Your task to perform on an android device: open app "Lyft - Rideshare, Bikes, Scooters & Transit" (install if not already installed) Image 0: 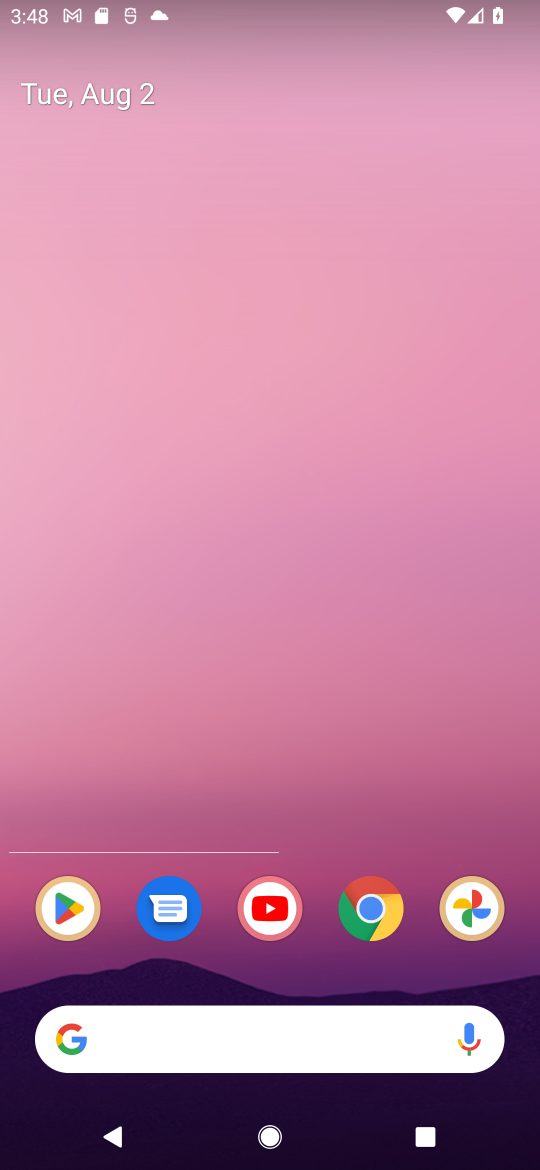
Step 0: press home button
Your task to perform on an android device: open app "Lyft - Rideshare, Bikes, Scooters & Transit" (install if not already installed) Image 1: 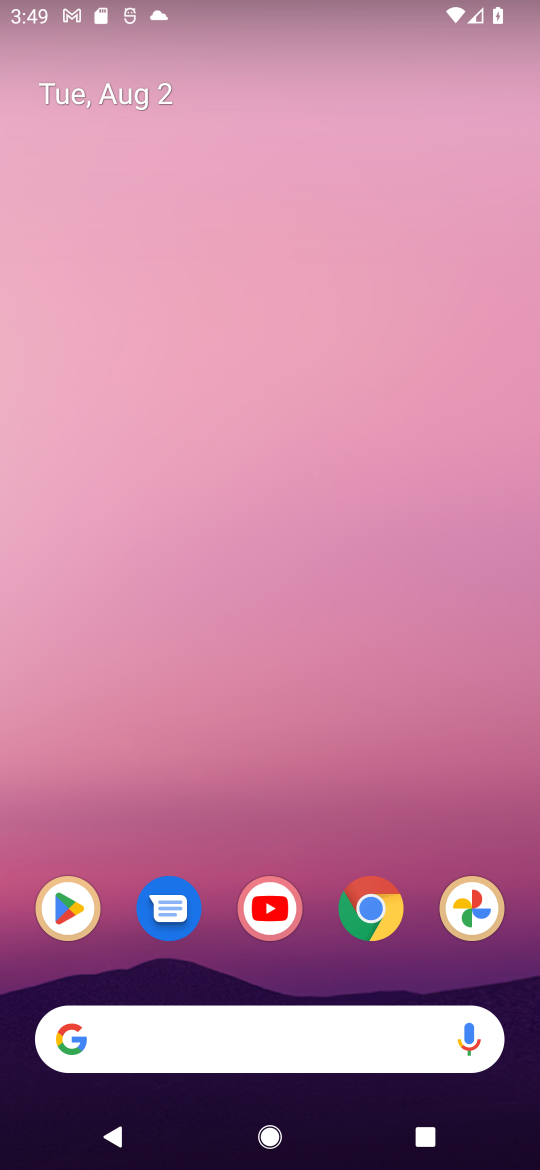
Step 1: click (62, 897)
Your task to perform on an android device: open app "Lyft - Rideshare, Bikes, Scooters & Transit" (install if not already installed) Image 2: 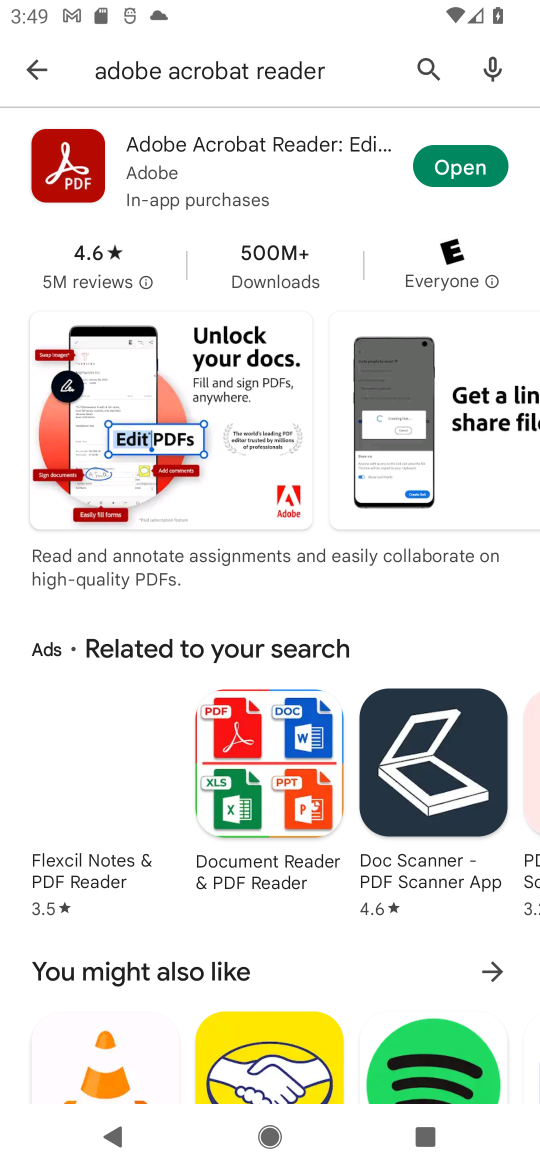
Step 2: click (423, 66)
Your task to perform on an android device: open app "Lyft - Rideshare, Bikes, Scooters & Transit" (install if not already installed) Image 3: 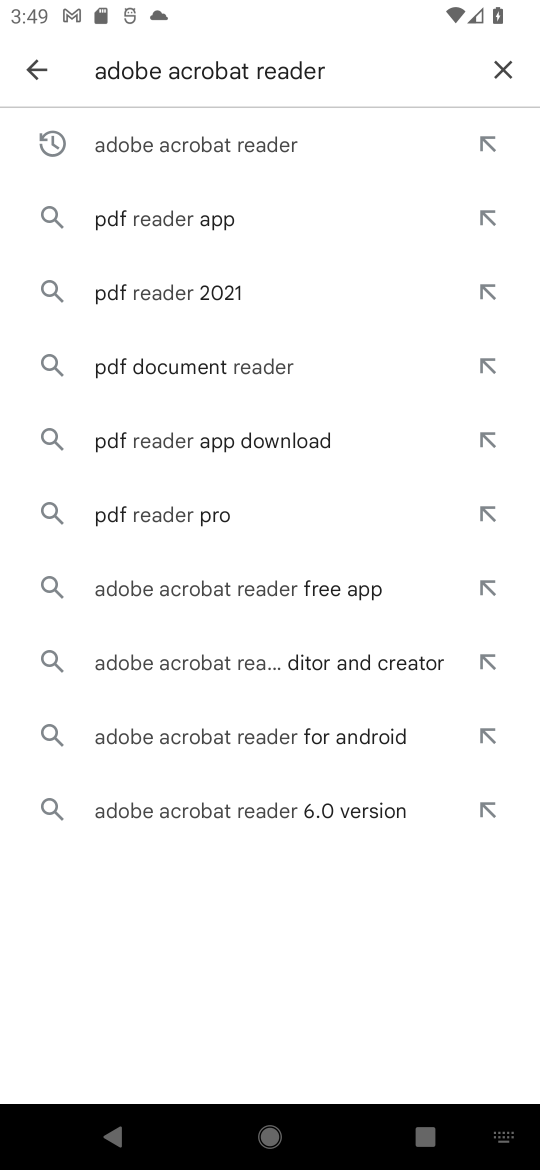
Step 3: click (496, 66)
Your task to perform on an android device: open app "Lyft - Rideshare, Bikes, Scooters & Transit" (install if not already installed) Image 4: 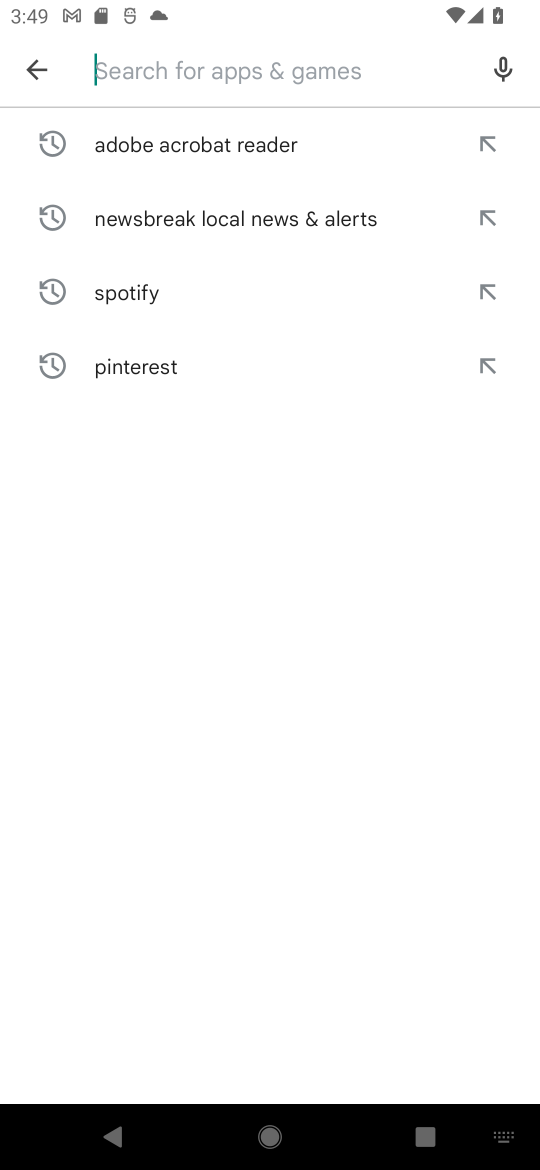
Step 4: type "Lyft - Rideshare, Bikes, Scooters & Transit"
Your task to perform on an android device: open app "Lyft - Rideshare, Bikes, Scooters & Transit" (install if not already installed) Image 5: 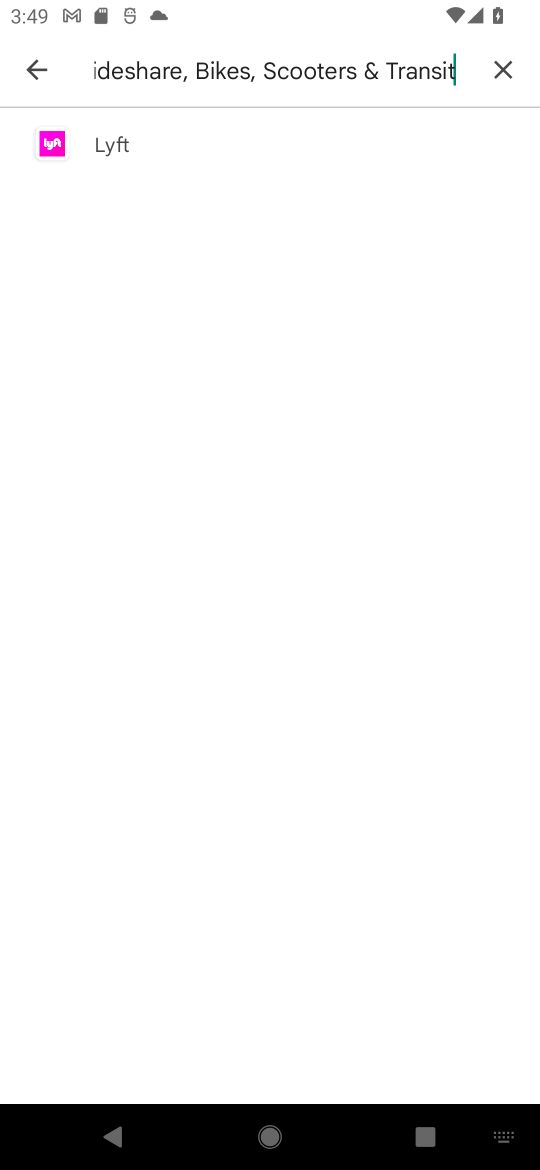
Step 5: click (114, 137)
Your task to perform on an android device: open app "Lyft - Rideshare, Bikes, Scooters & Transit" (install if not already installed) Image 6: 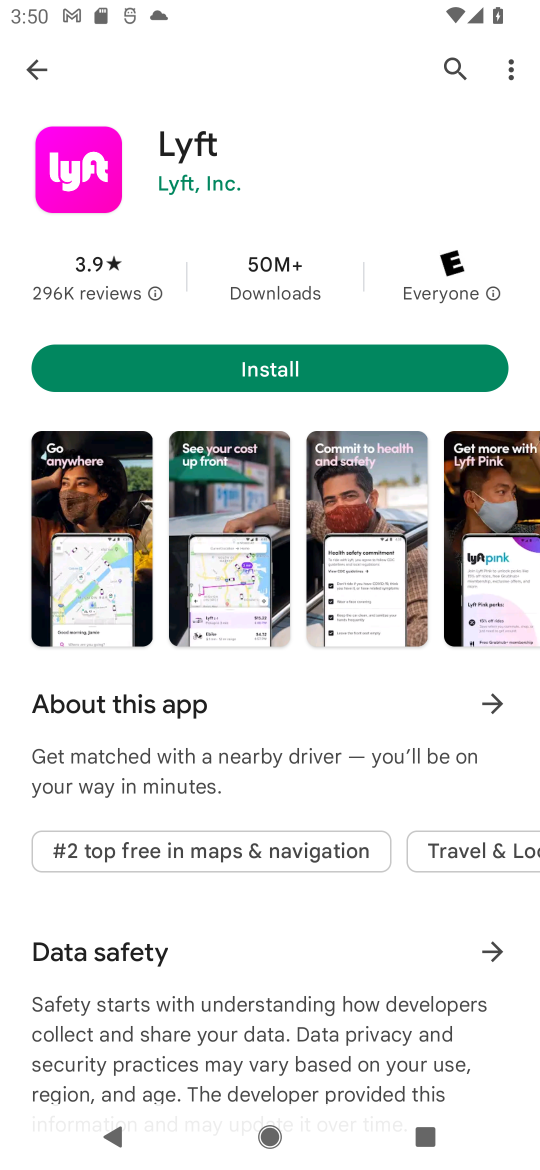
Step 6: click (284, 371)
Your task to perform on an android device: open app "Lyft - Rideshare, Bikes, Scooters & Transit" (install if not already installed) Image 7: 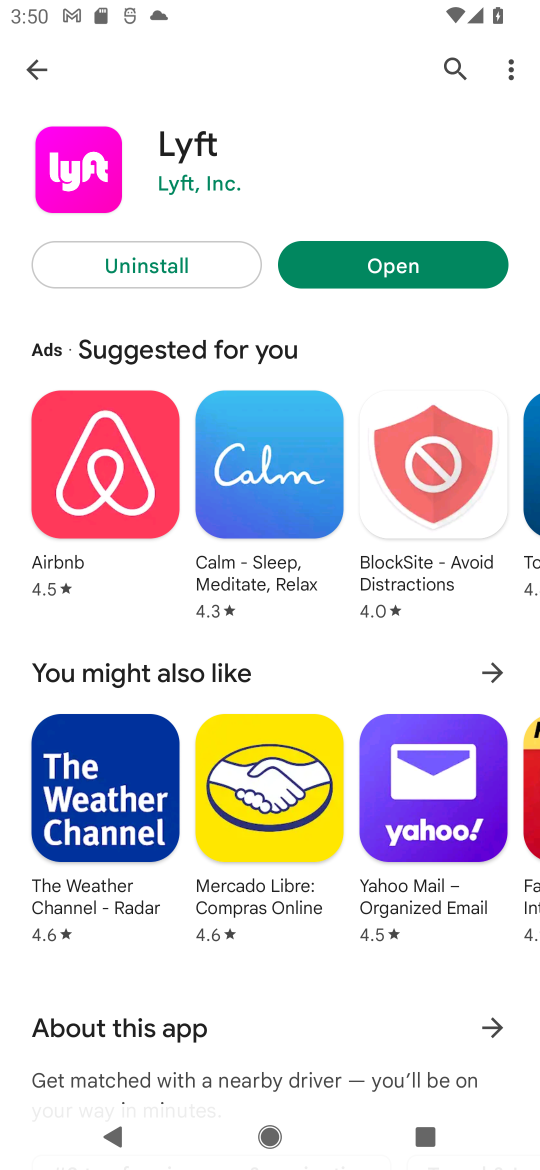
Step 7: click (392, 266)
Your task to perform on an android device: open app "Lyft - Rideshare, Bikes, Scooters & Transit" (install if not already installed) Image 8: 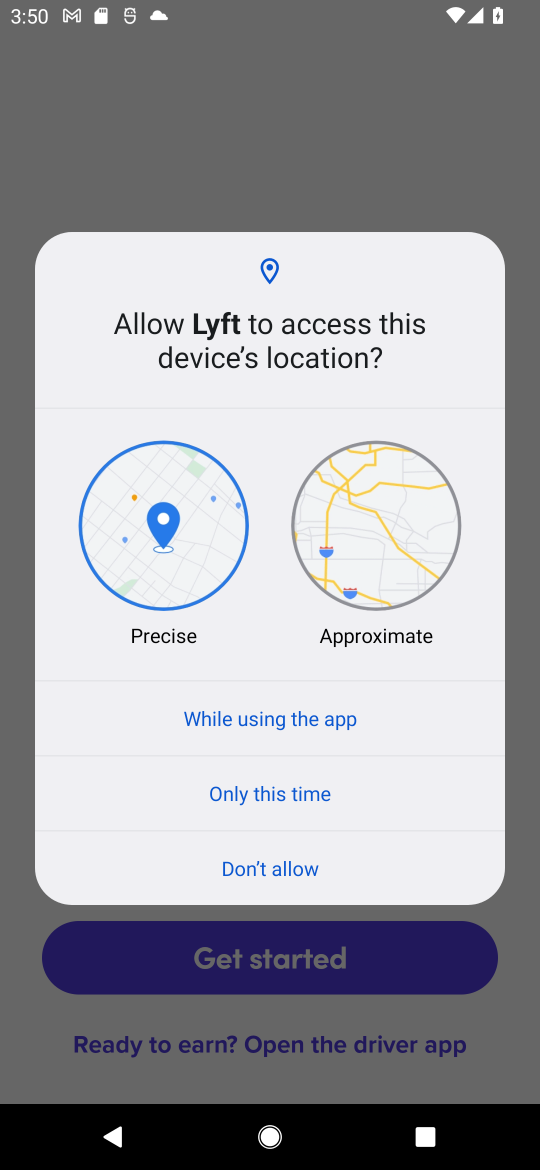
Step 8: click (249, 717)
Your task to perform on an android device: open app "Lyft - Rideshare, Bikes, Scooters & Transit" (install if not already installed) Image 9: 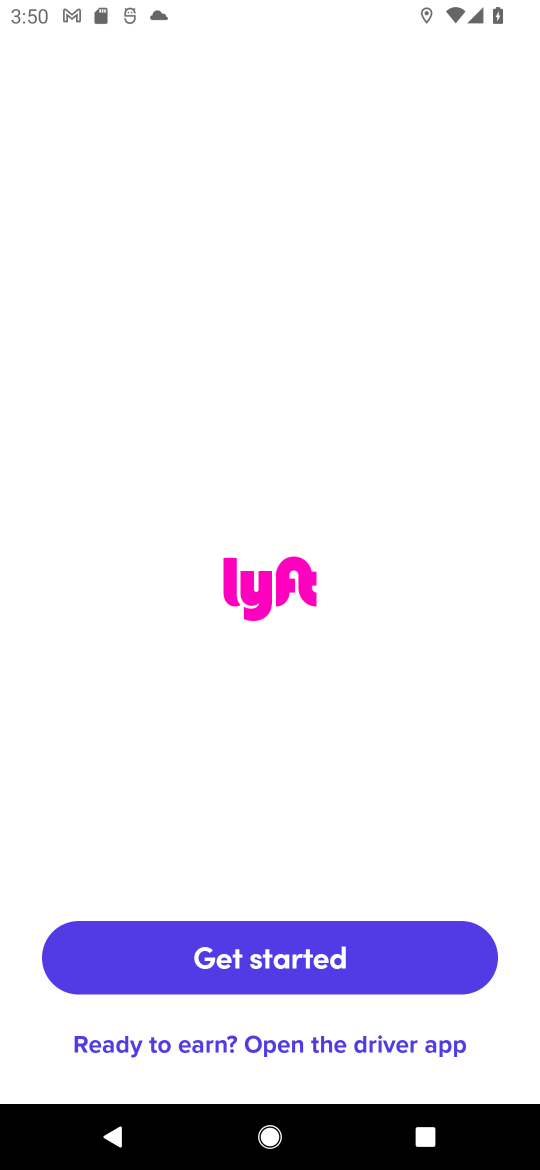
Step 9: click (252, 957)
Your task to perform on an android device: open app "Lyft - Rideshare, Bikes, Scooters & Transit" (install if not already installed) Image 10: 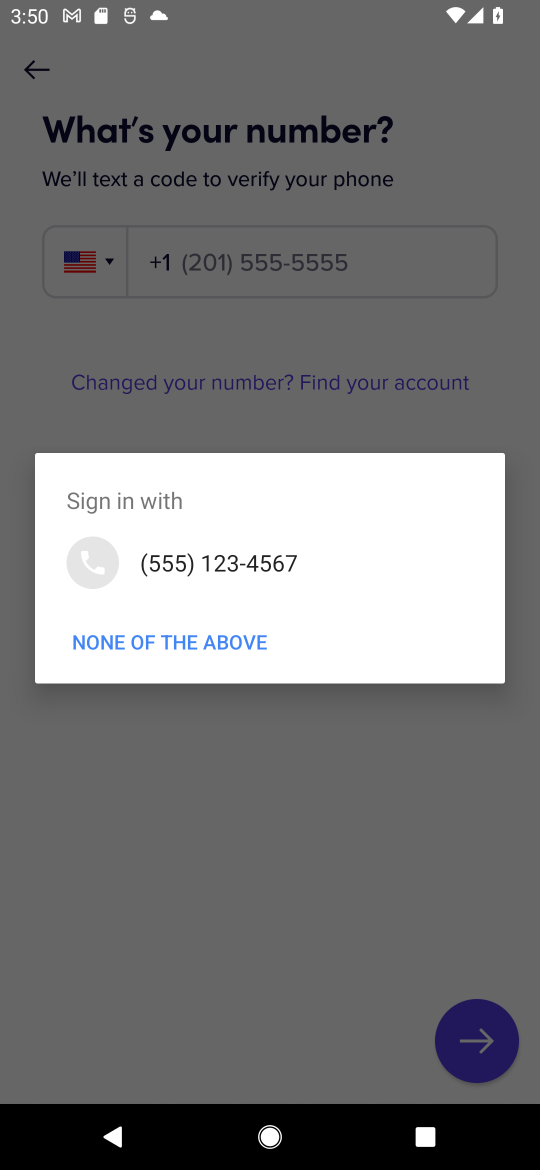
Step 10: click (175, 567)
Your task to perform on an android device: open app "Lyft - Rideshare, Bikes, Scooters & Transit" (install if not already installed) Image 11: 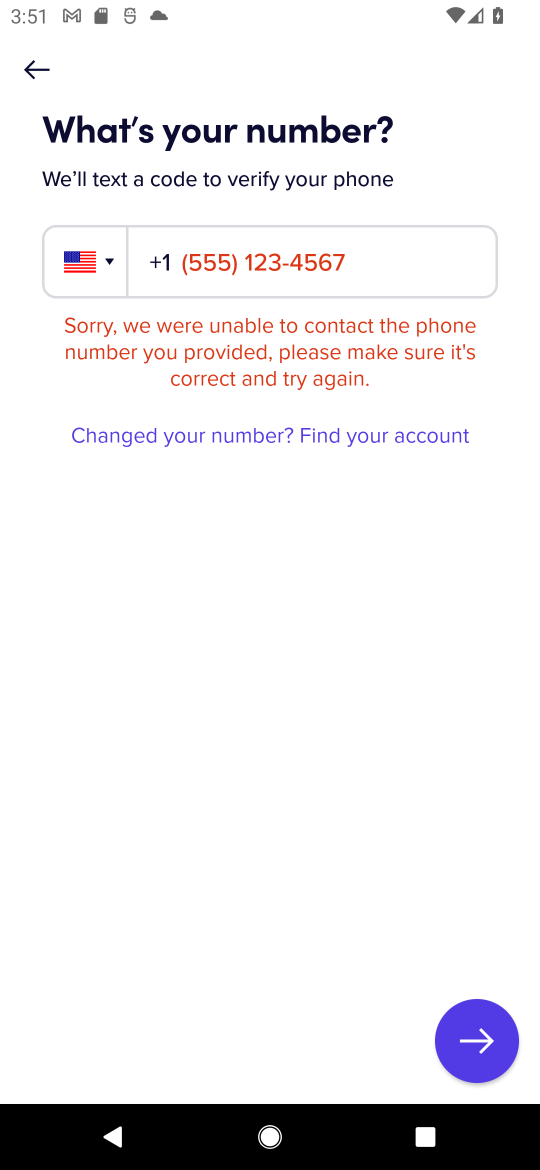
Step 11: click (189, 432)
Your task to perform on an android device: open app "Lyft - Rideshare, Bikes, Scooters & Transit" (install if not already installed) Image 12: 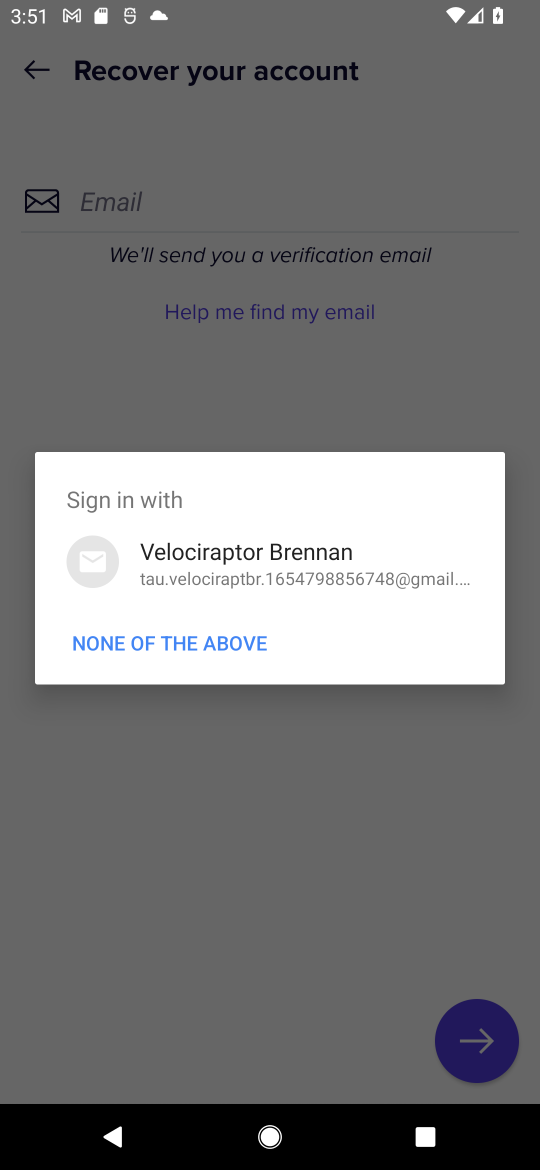
Step 12: click (240, 558)
Your task to perform on an android device: open app "Lyft - Rideshare, Bikes, Scooters & Transit" (install if not already installed) Image 13: 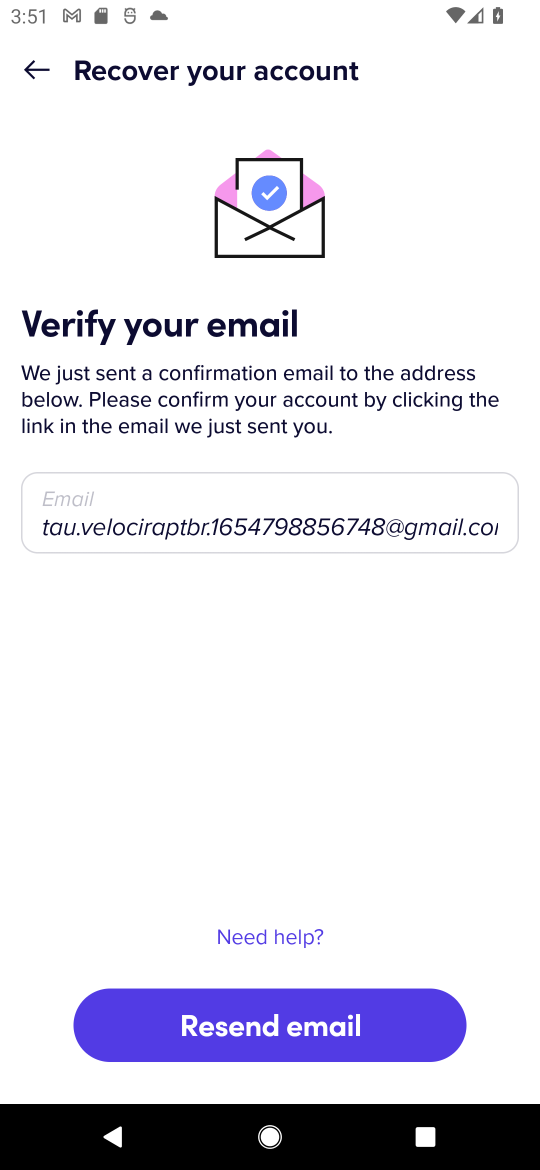
Step 13: click (257, 1031)
Your task to perform on an android device: open app "Lyft - Rideshare, Bikes, Scooters & Transit" (install if not already installed) Image 14: 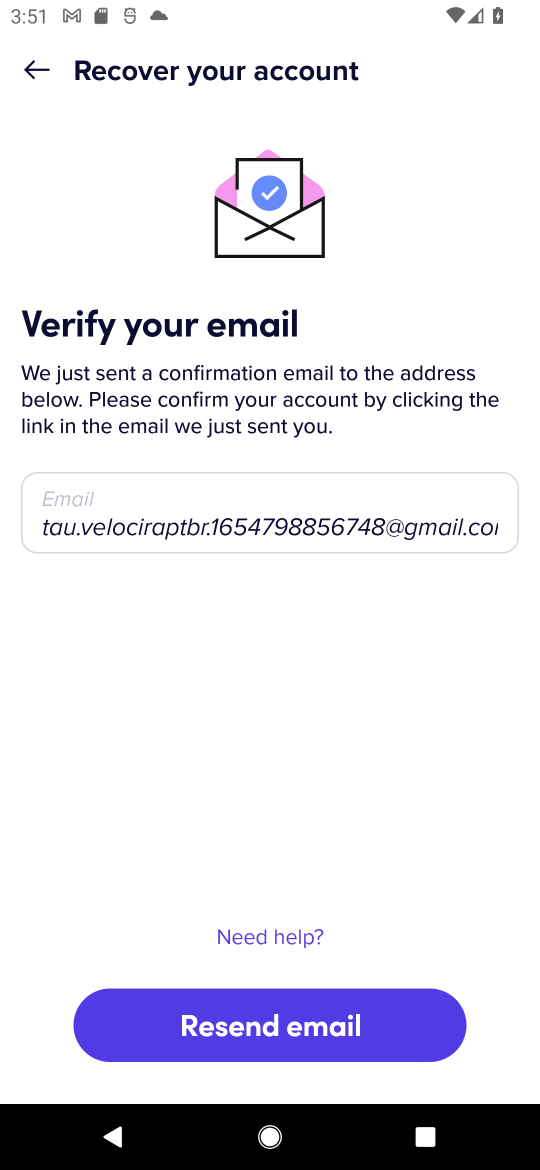
Step 14: click (263, 1024)
Your task to perform on an android device: open app "Lyft - Rideshare, Bikes, Scooters & Transit" (install if not already installed) Image 15: 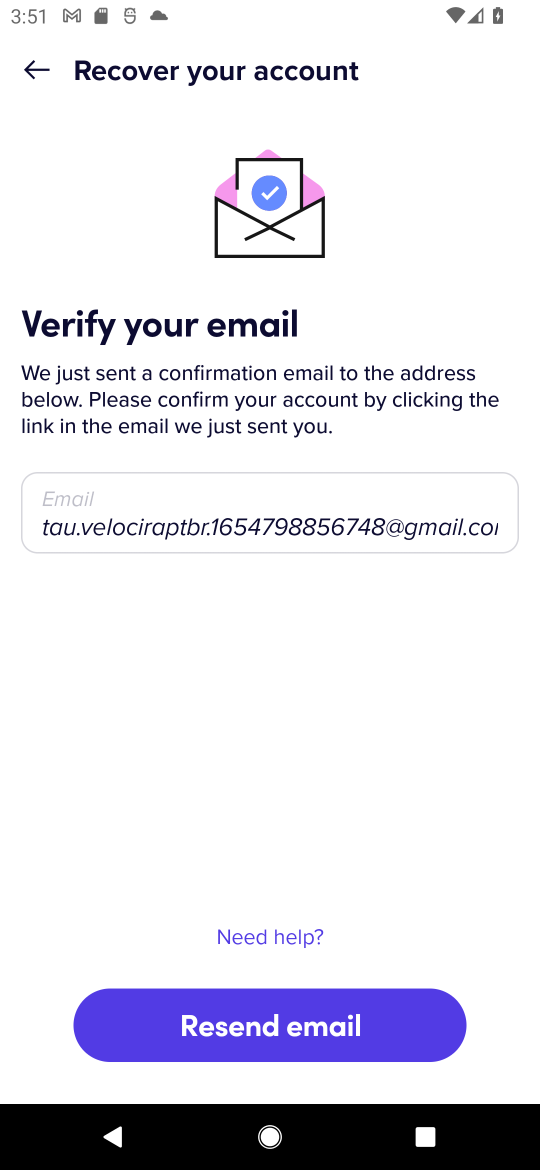
Step 15: task complete